Your task to perform on an android device: turn off improve location accuracy Image 0: 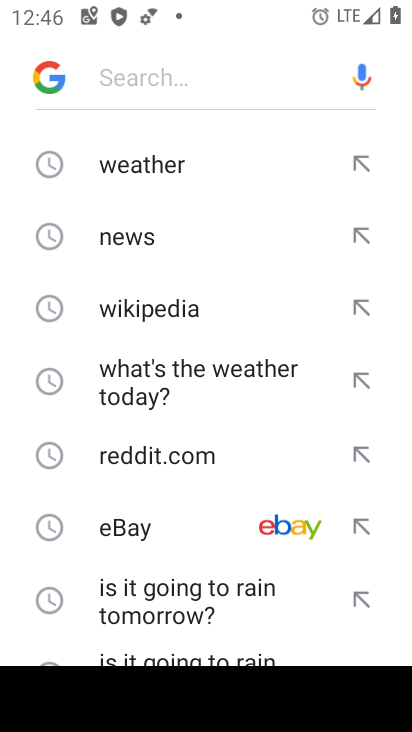
Step 0: press home button
Your task to perform on an android device: turn off improve location accuracy Image 1: 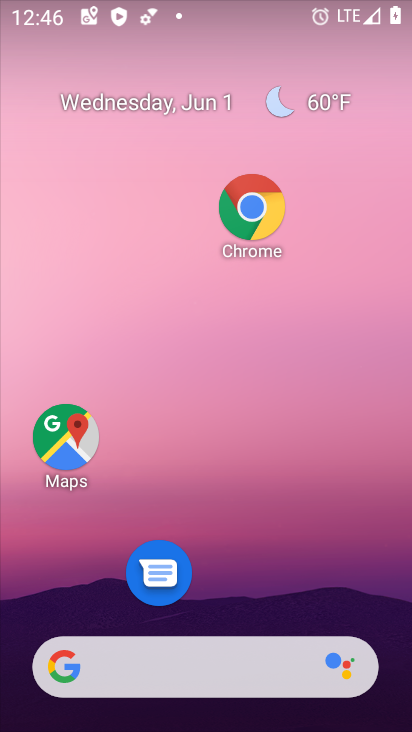
Step 1: drag from (222, 599) to (210, 247)
Your task to perform on an android device: turn off improve location accuracy Image 2: 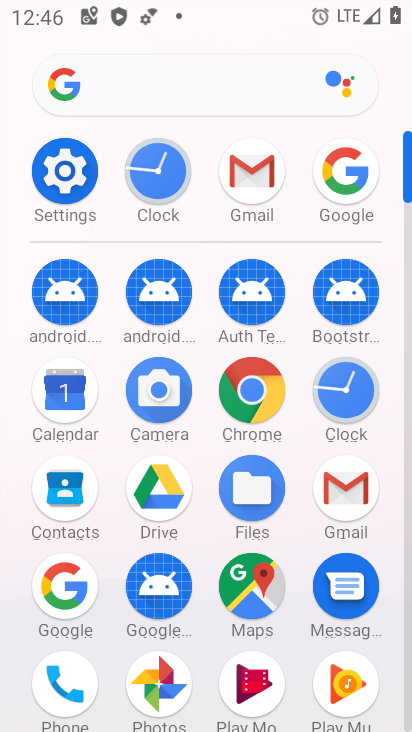
Step 2: click (79, 153)
Your task to perform on an android device: turn off improve location accuracy Image 3: 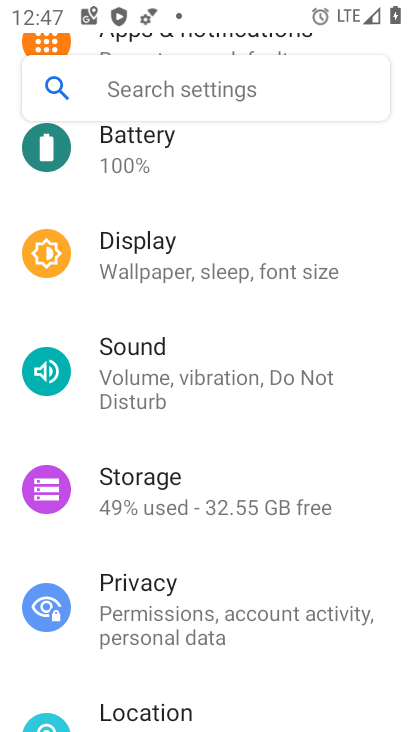
Step 3: drag from (214, 647) to (226, 429)
Your task to perform on an android device: turn off improve location accuracy Image 4: 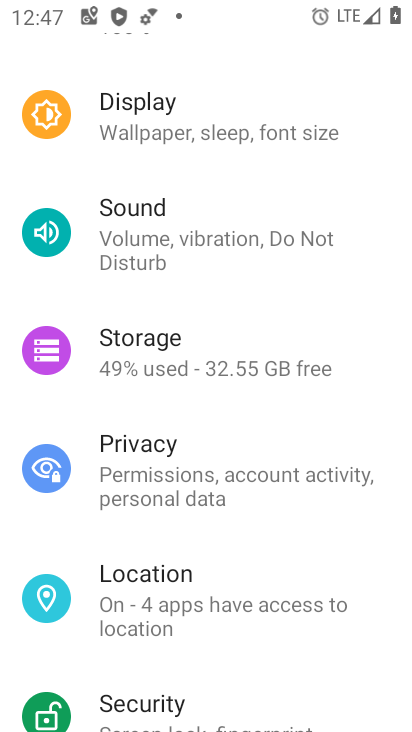
Step 4: click (230, 593)
Your task to perform on an android device: turn off improve location accuracy Image 5: 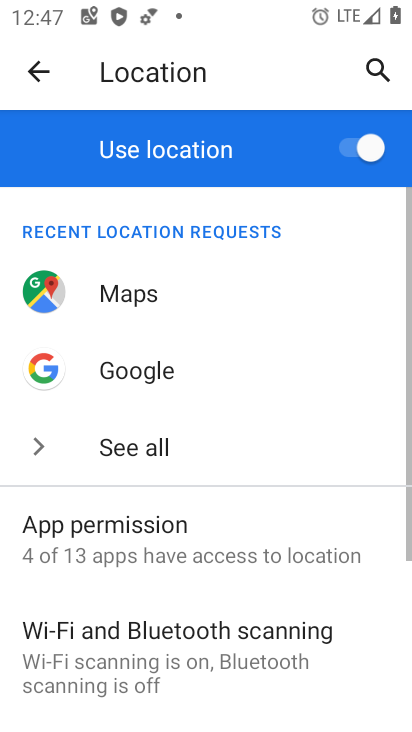
Step 5: drag from (258, 570) to (252, 276)
Your task to perform on an android device: turn off improve location accuracy Image 6: 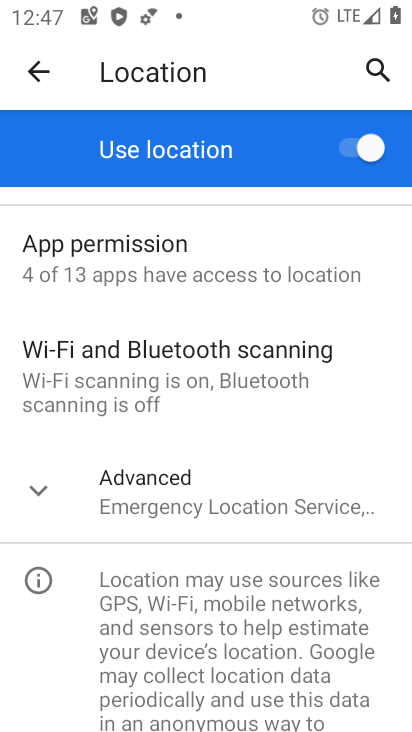
Step 6: click (237, 488)
Your task to perform on an android device: turn off improve location accuracy Image 7: 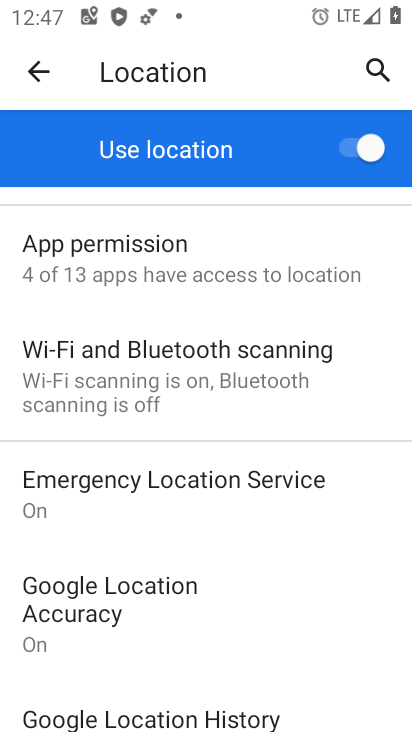
Step 7: drag from (275, 643) to (324, 335)
Your task to perform on an android device: turn off improve location accuracy Image 8: 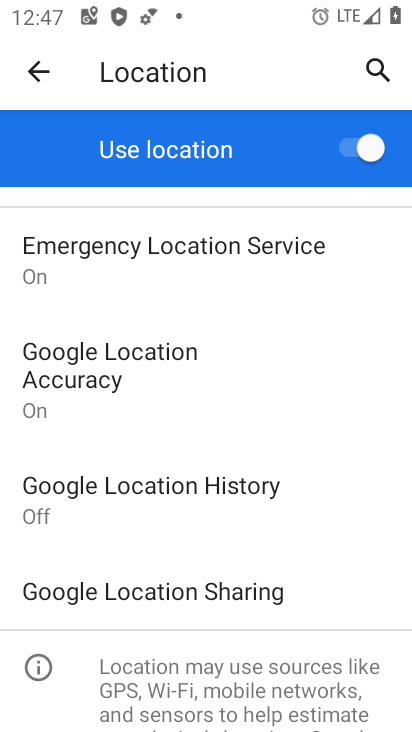
Step 8: click (231, 359)
Your task to perform on an android device: turn off improve location accuracy Image 9: 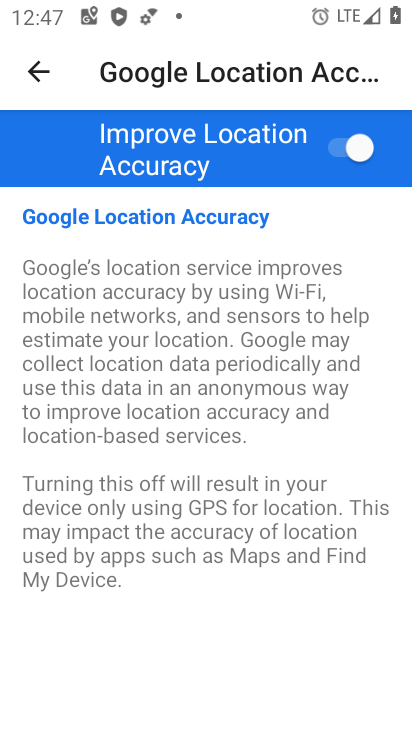
Step 9: click (330, 154)
Your task to perform on an android device: turn off improve location accuracy Image 10: 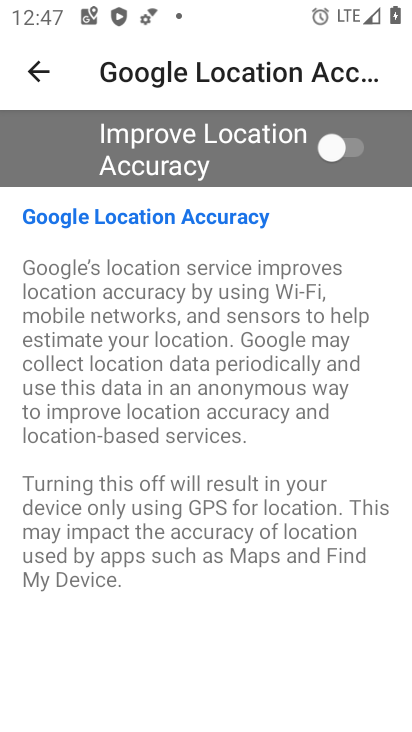
Step 10: task complete